Your task to perform on an android device: What's the news in Brazil? Image 0: 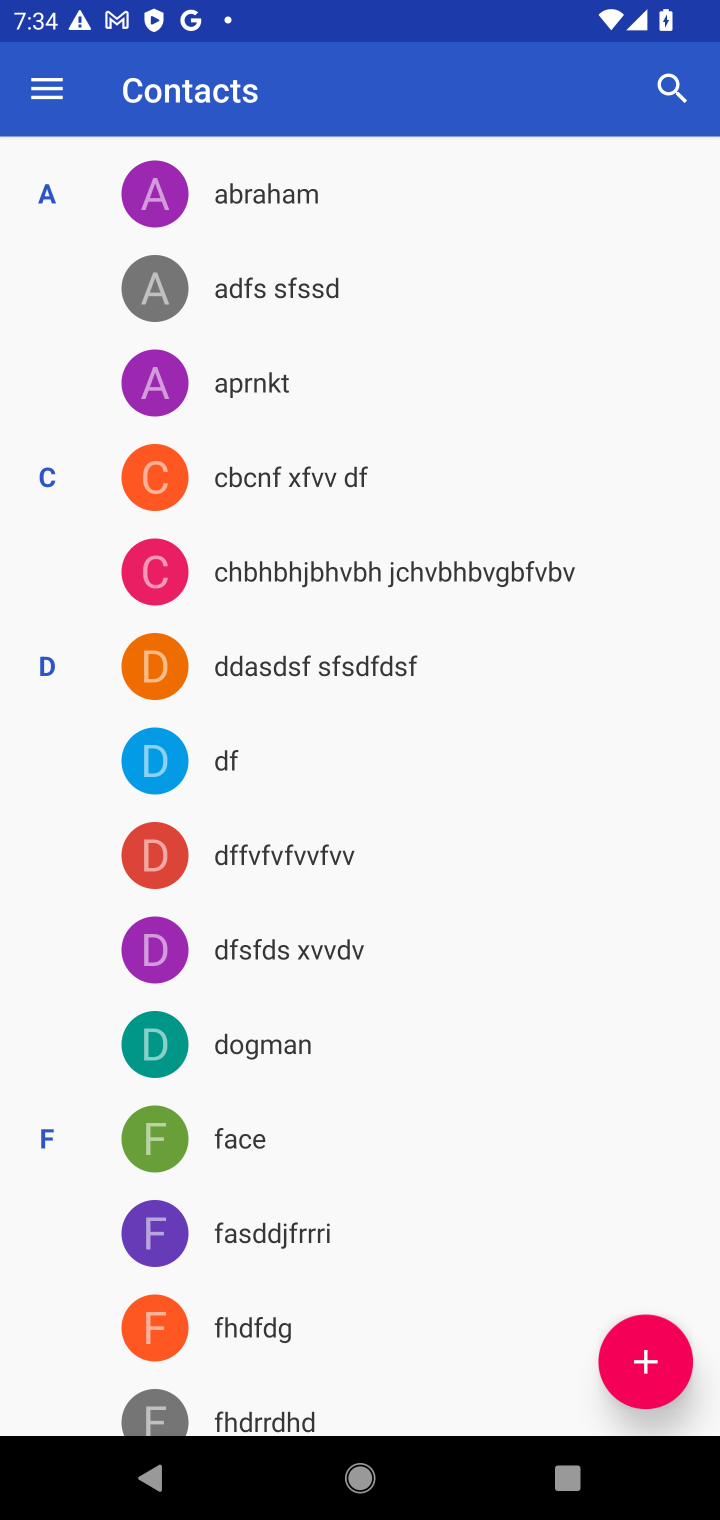
Step 0: press home button
Your task to perform on an android device: What's the news in Brazil? Image 1: 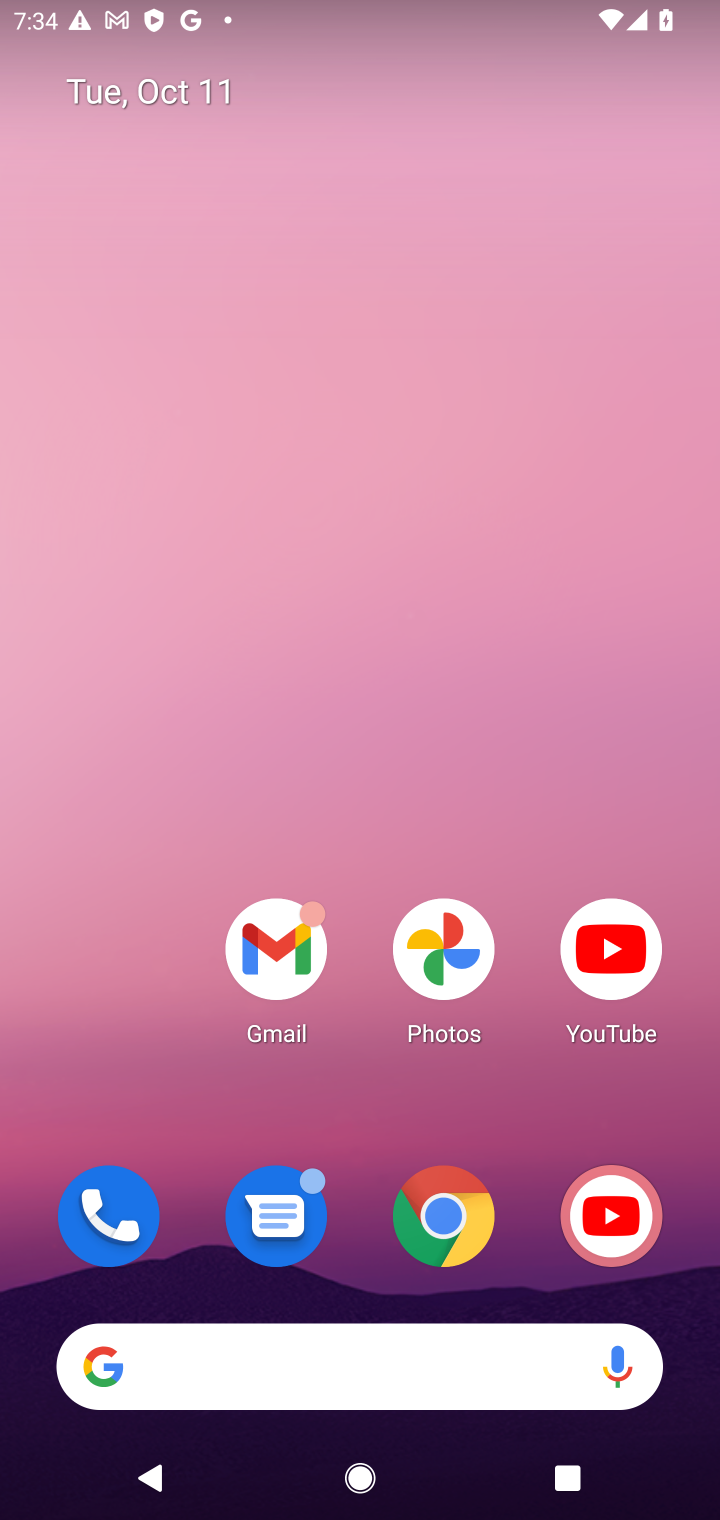
Step 1: click (456, 1194)
Your task to perform on an android device: What's the news in Brazil? Image 2: 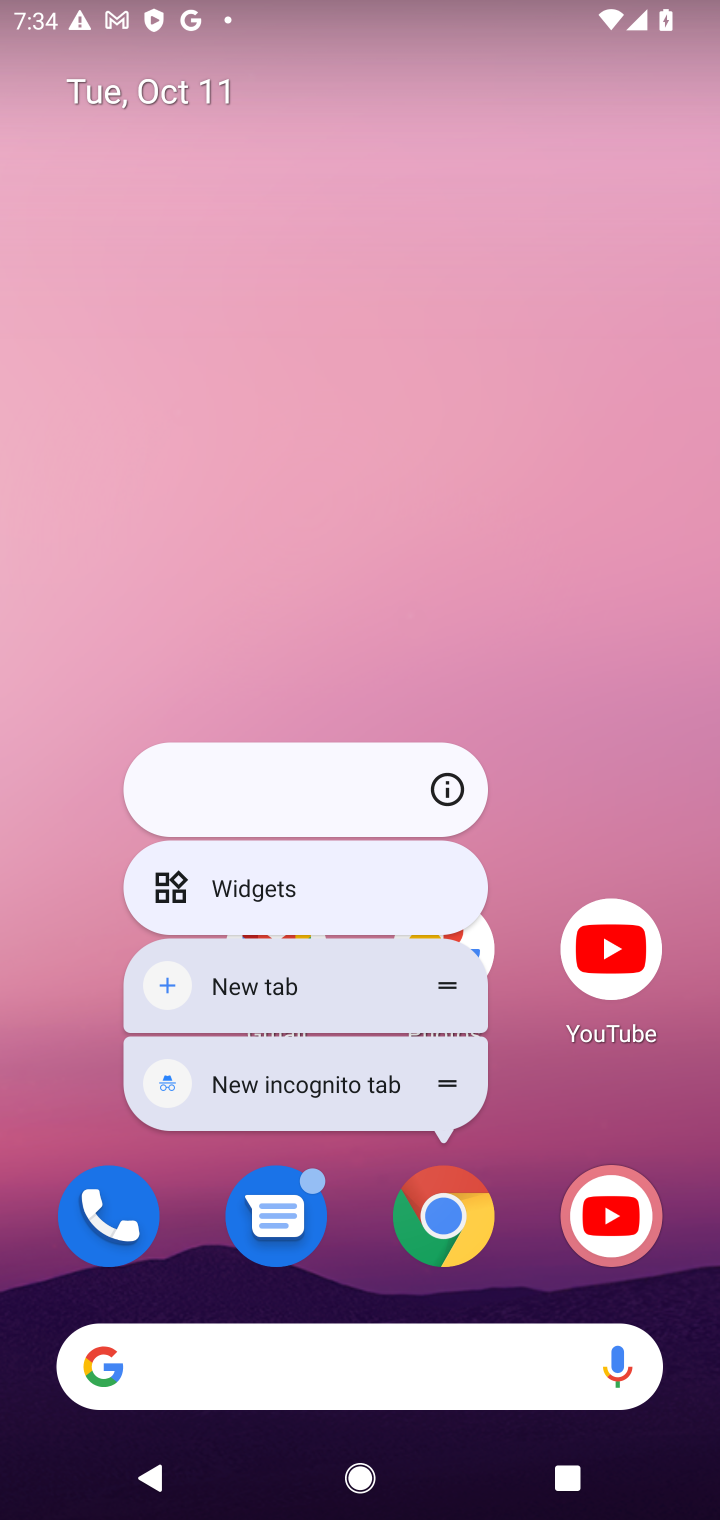
Step 2: click (456, 1194)
Your task to perform on an android device: What's the news in Brazil? Image 3: 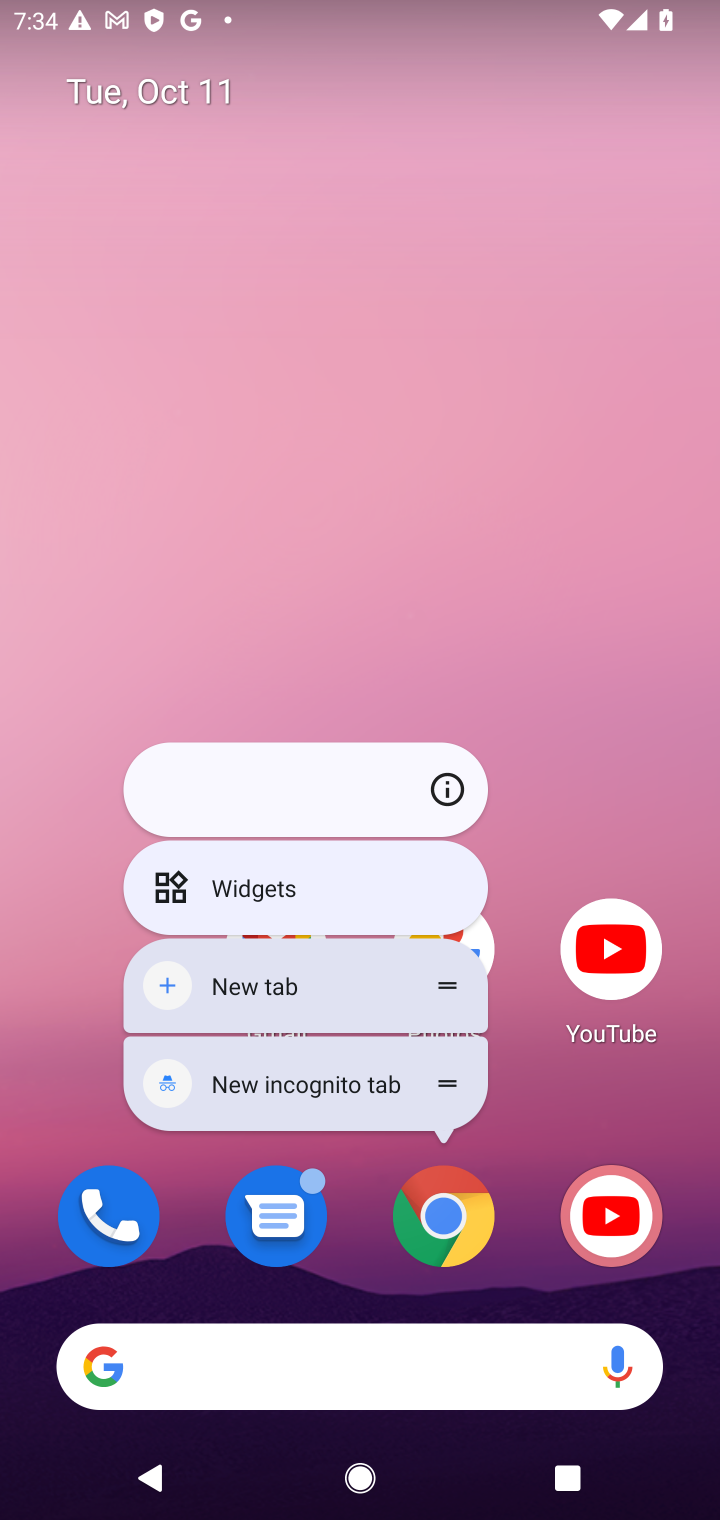
Step 3: click (456, 1194)
Your task to perform on an android device: What's the news in Brazil? Image 4: 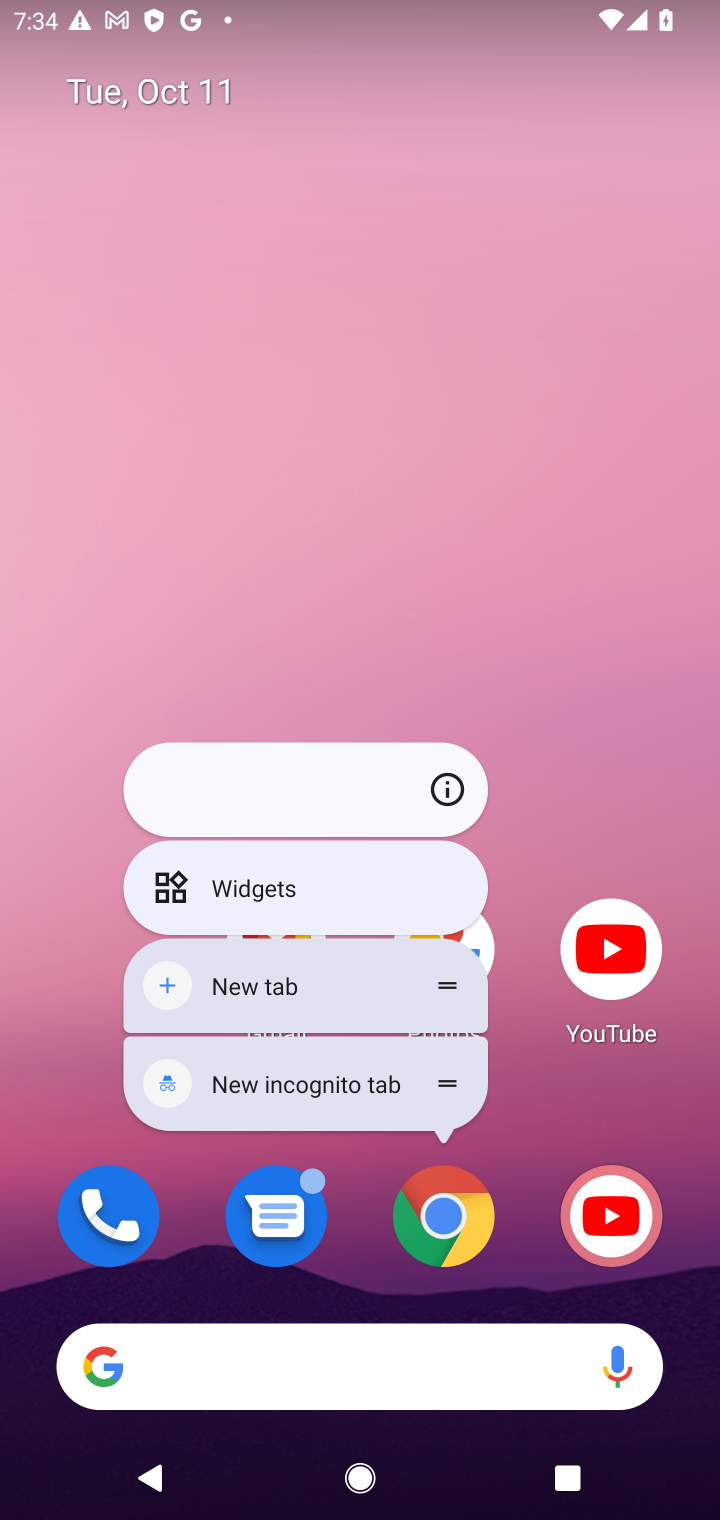
Step 4: click (462, 1253)
Your task to perform on an android device: What's the news in Brazil? Image 5: 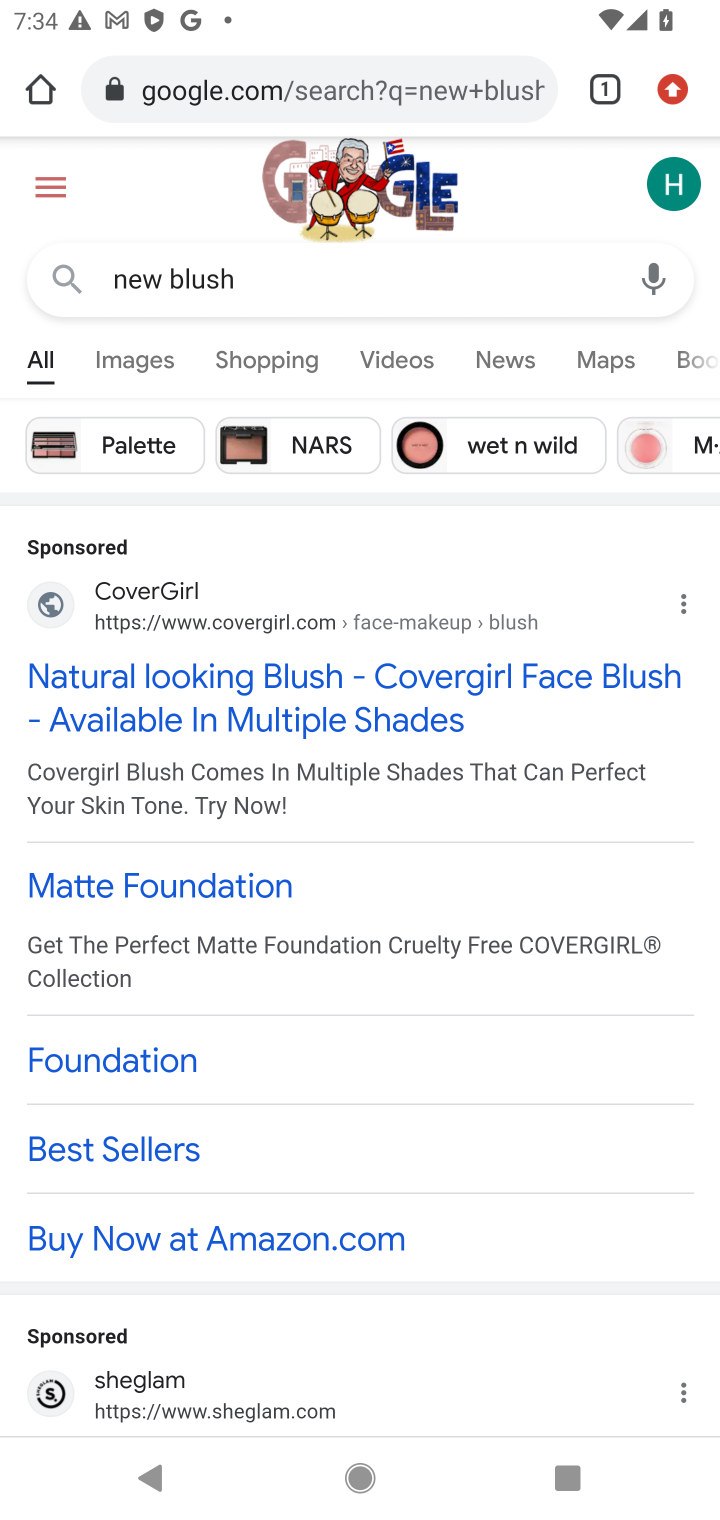
Step 5: click (437, 280)
Your task to perform on an android device: What's the news in Brazil? Image 6: 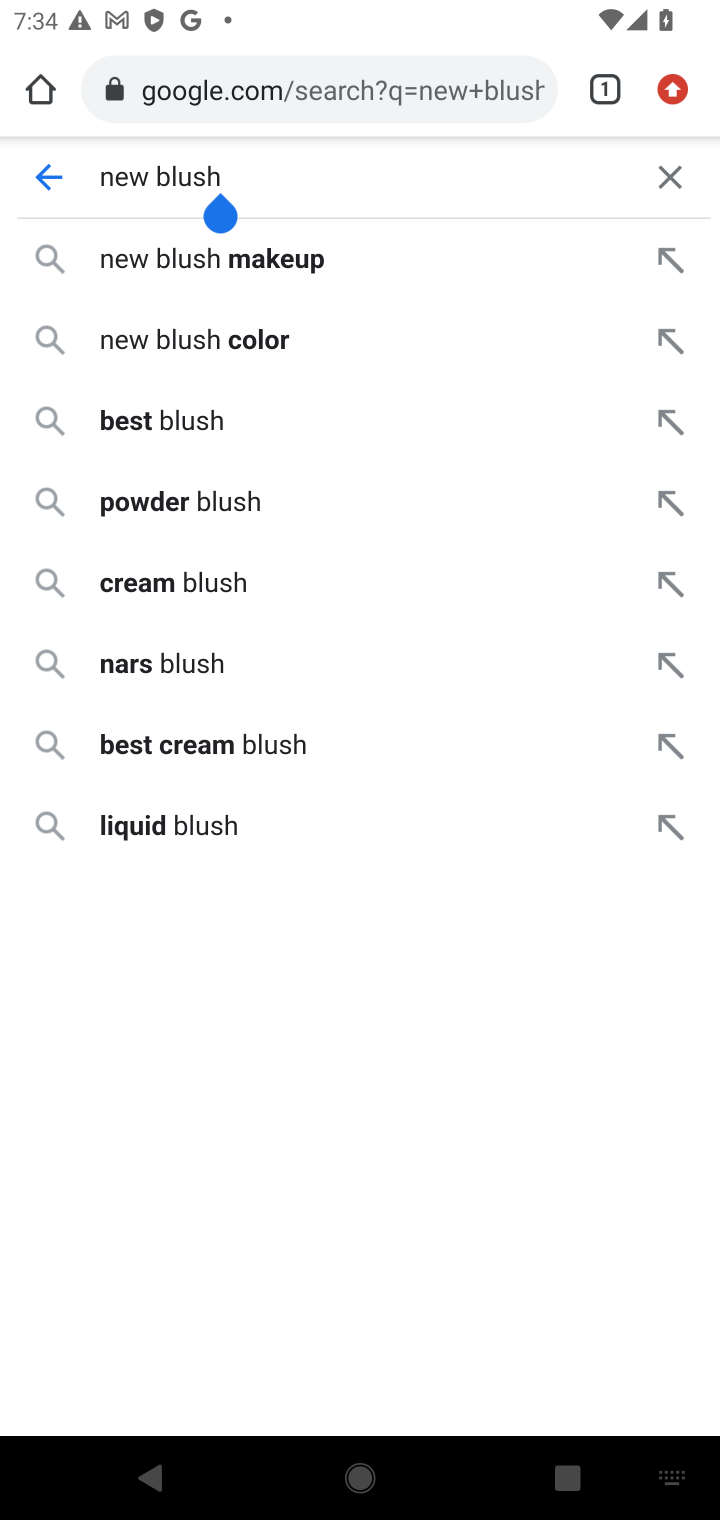
Step 6: click (651, 174)
Your task to perform on an android device: What's the news in Brazil? Image 7: 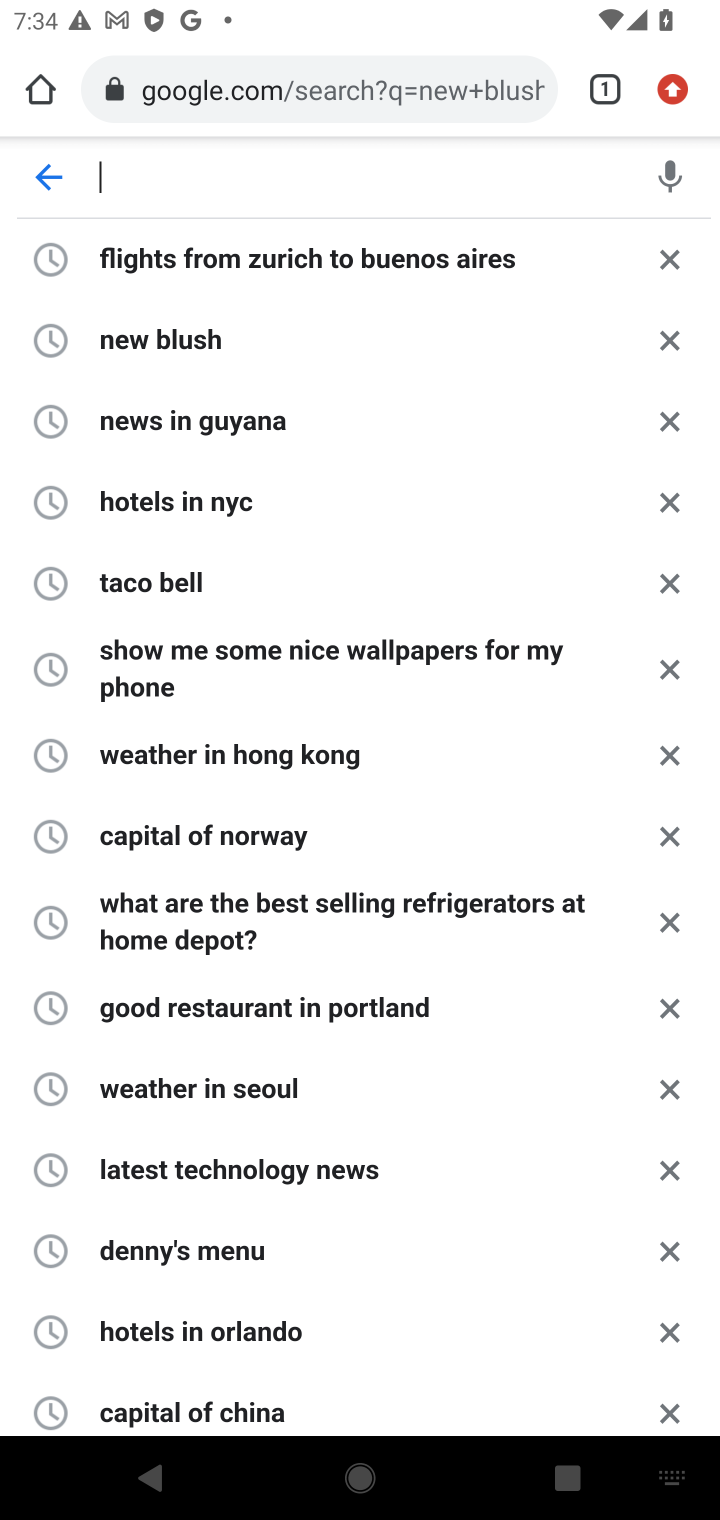
Step 7: type "news in brazil"
Your task to perform on an android device: What's the news in Brazil? Image 8: 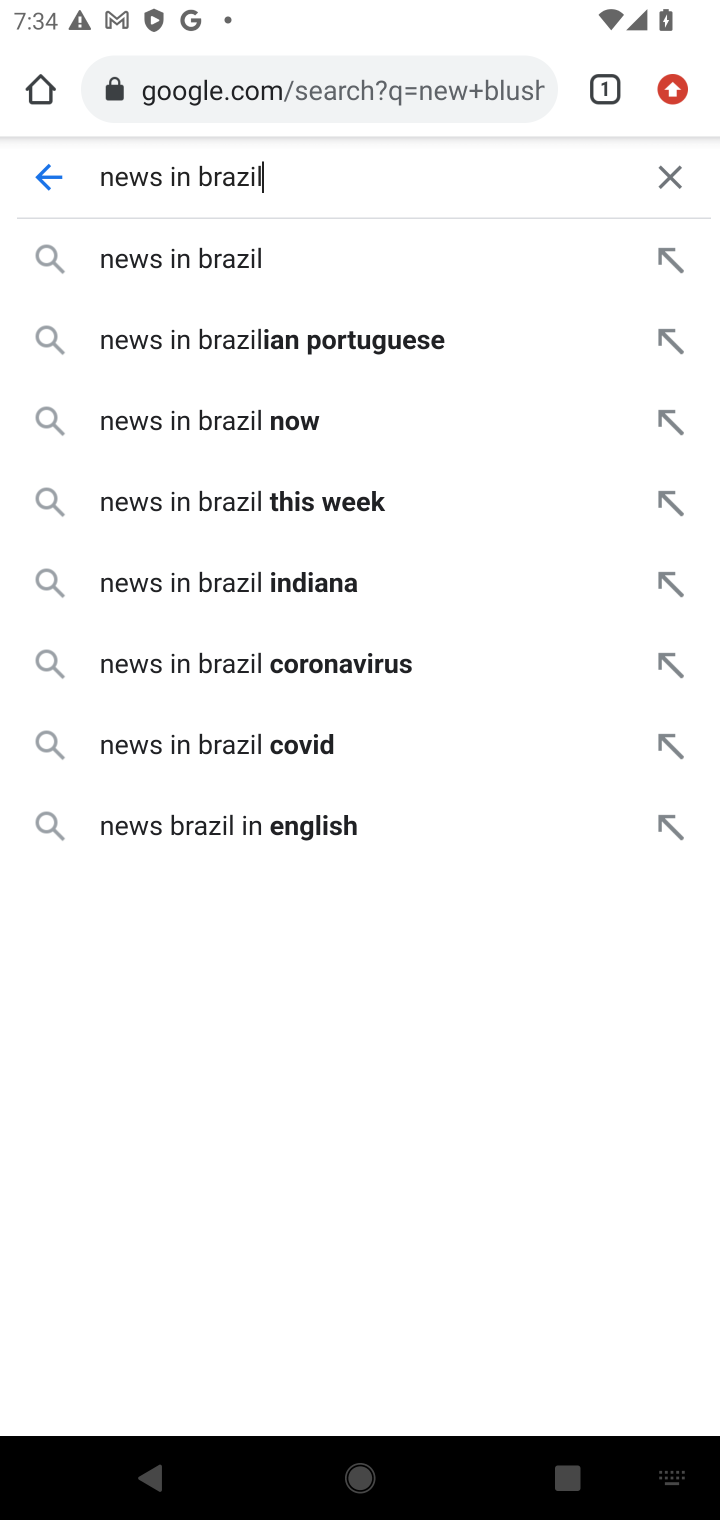
Step 8: click (257, 244)
Your task to perform on an android device: What's the news in Brazil? Image 9: 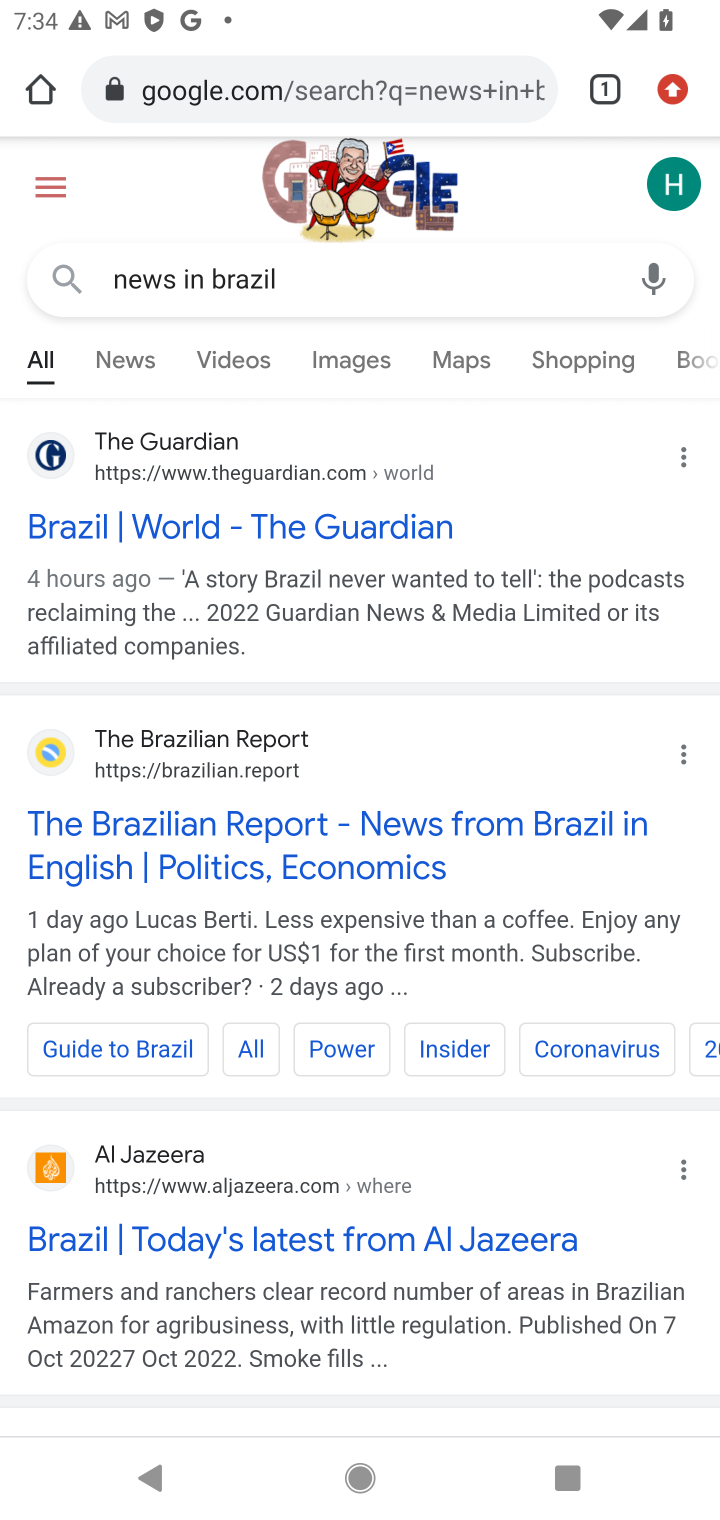
Step 9: click (128, 340)
Your task to perform on an android device: What's the news in Brazil? Image 10: 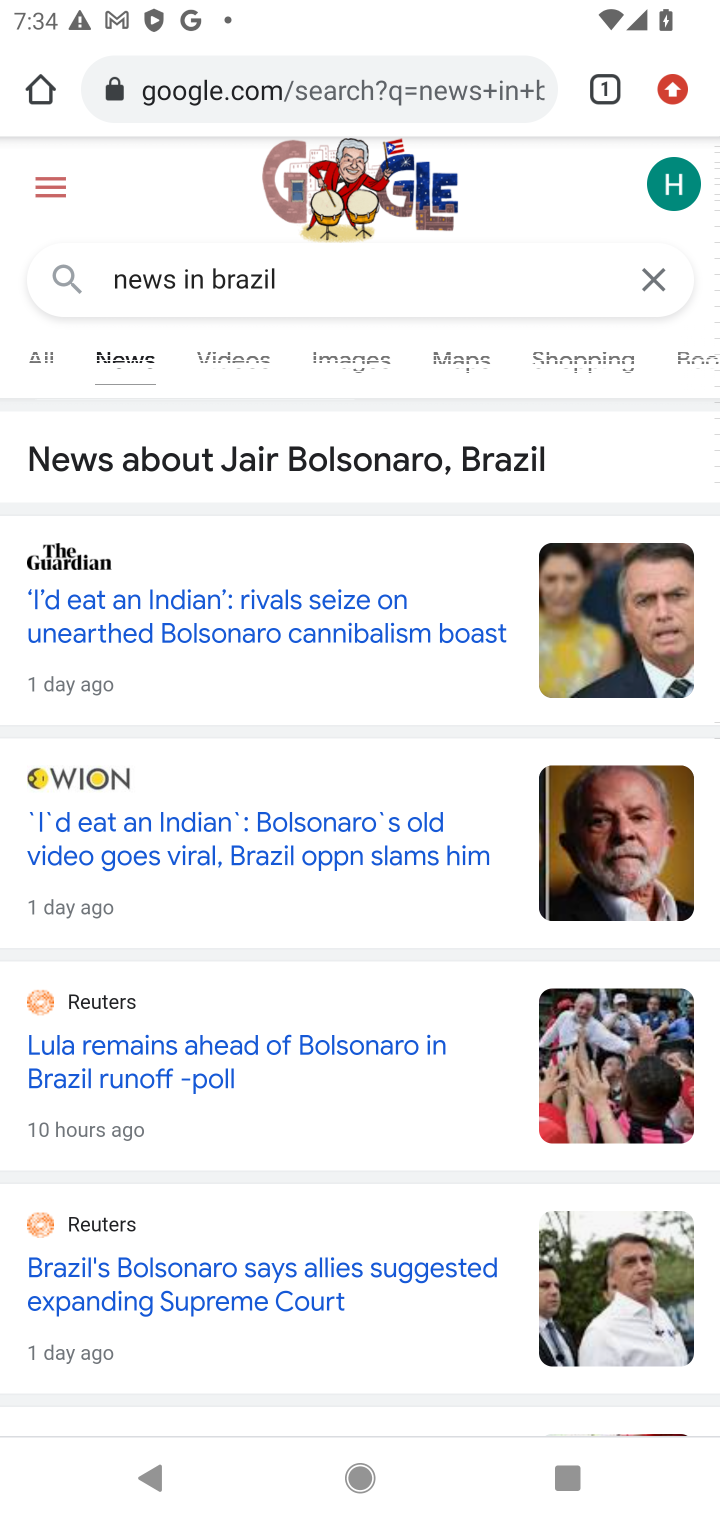
Step 10: task complete